Your task to perform on an android device: toggle sleep mode Image 0: 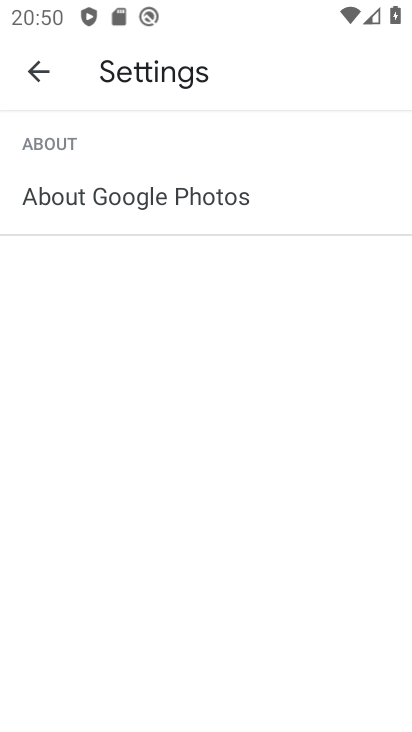
Step 0: press home button
Your task to perform on an android device: toggle sleep mode Image 1: 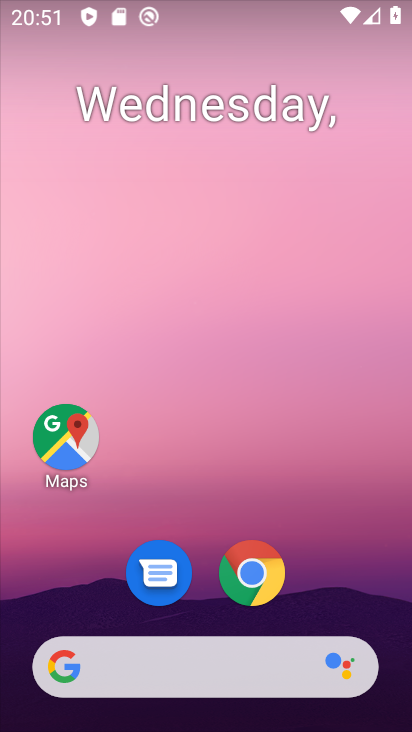
Step 1: drag from (365, 556) to (366, 255)
Your task to perform on an android device: toggle sleep mode Image 2: 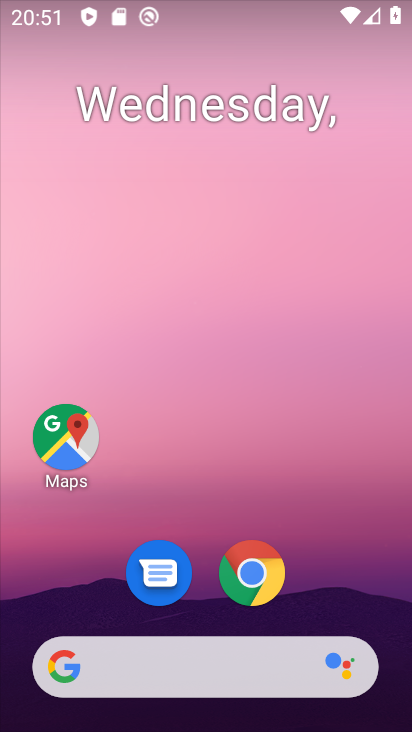
Step 2: click (369, 14)
Your task to perform on an android device: toggle sleep mode Image 3: 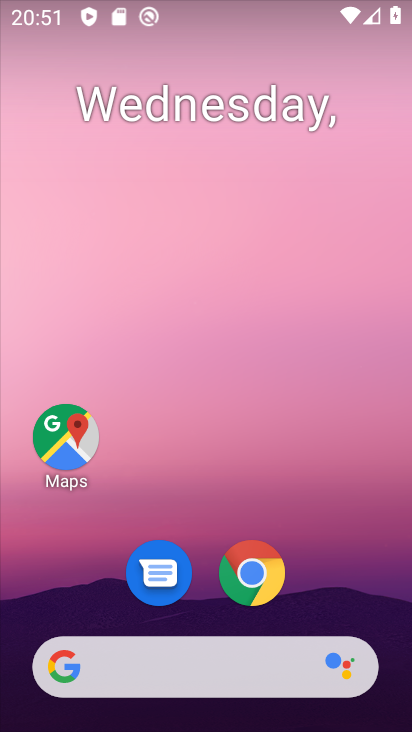
Step 3: drag from (366, 591) to (352, 40)
Your task to perform on an android device: toggle sleep mode Image 4: 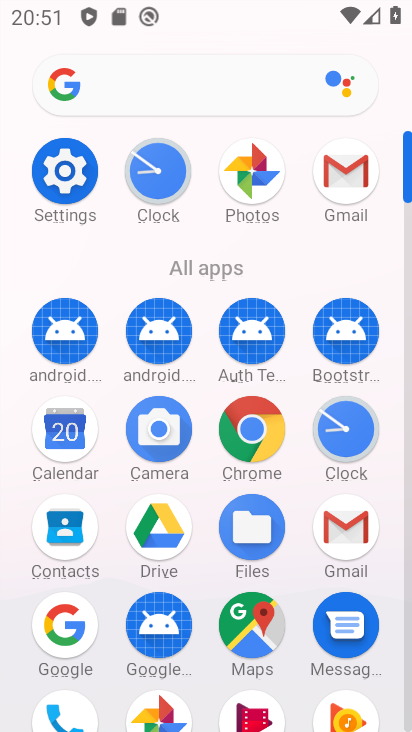
Step 4: click (56, 177)
Your task to perform on an android device: toggle sleep mode Image 5: 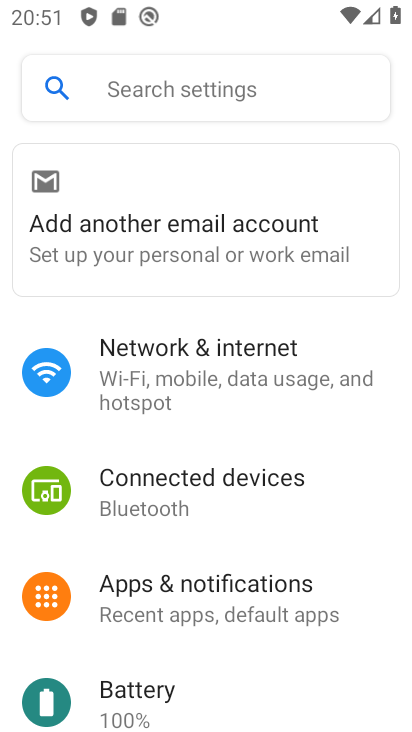
Step 5: drag from (357, 609) to (355, 278)
Your task to perform on an android device: toggle sleep mode Image 6: 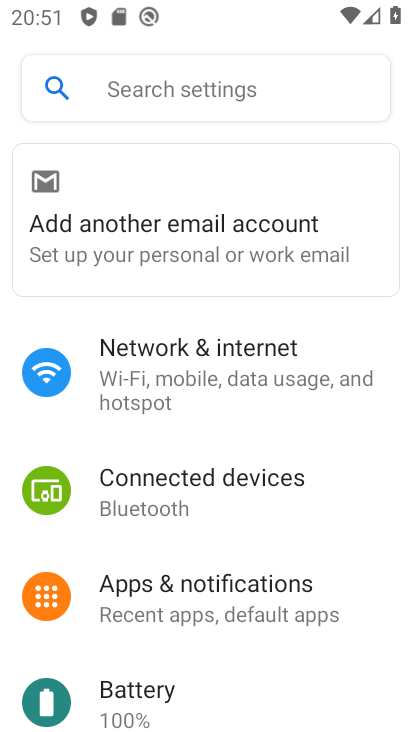
Step 6: click (375, 337)
Your task to perform on an android device: toggle sleep mode Image 7: 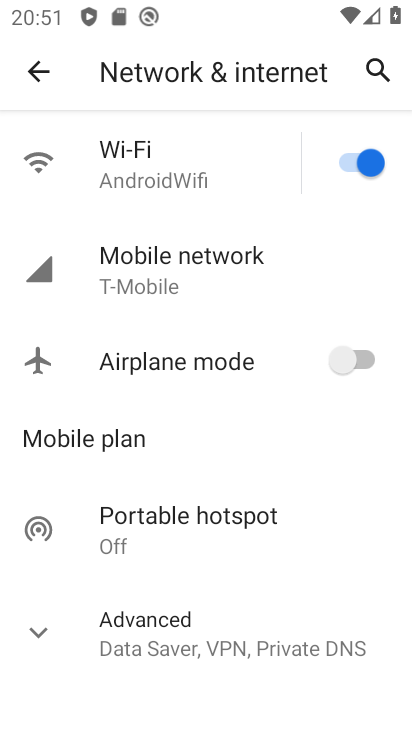
Step 7: click (41, 70)
Your task to perform on an android device: toggle sleep mode Image 8: 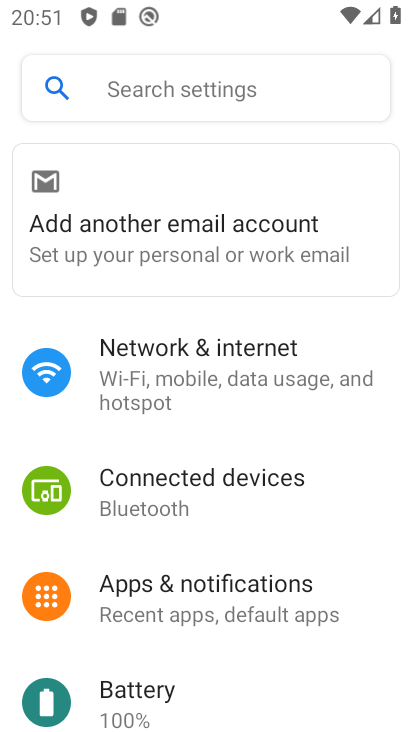
Step 8: drag from (380, 389) to (380, 272)
Your task to perform on an android device: toggle sleep mode Image 9: 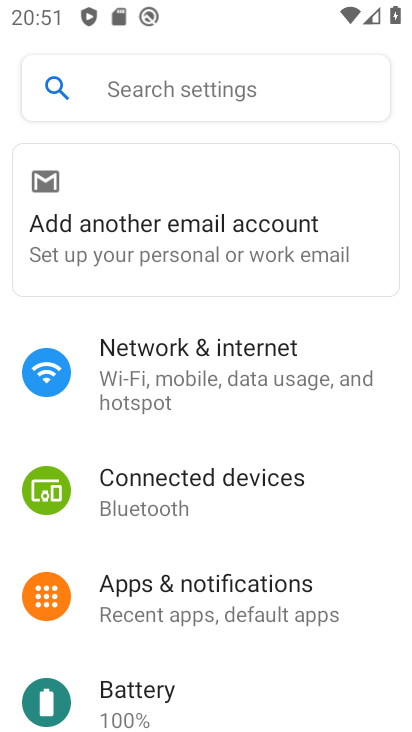
Step 9: drag from (385, 410) to (392, 274)
Your task to perform on an android device: toggle sleep mode Image 10: 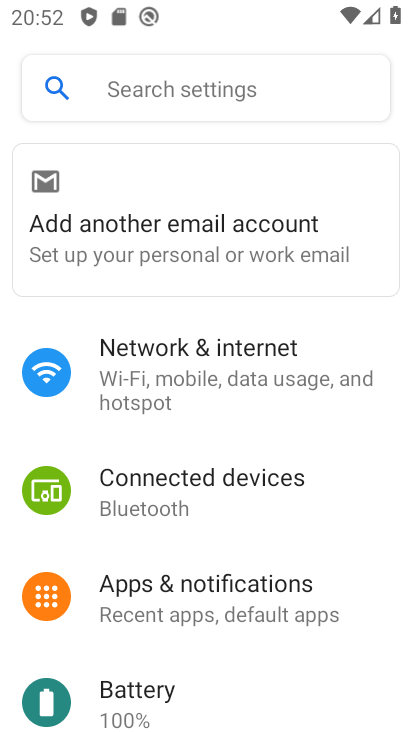
Step 10: drag from (363, 697) to (382, 340)
Your task to perform on an android device: toggle sleep mode Image 11: 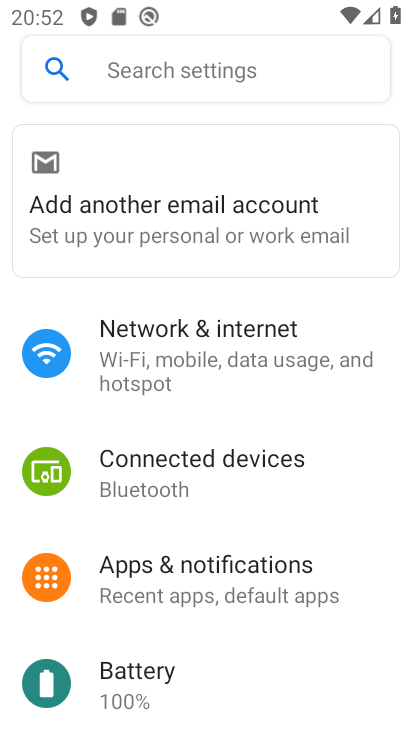
Step 11: drag from (333, 653) to (353, 314)
Your task to perform on an android device: toggle sleep mode Image 12: 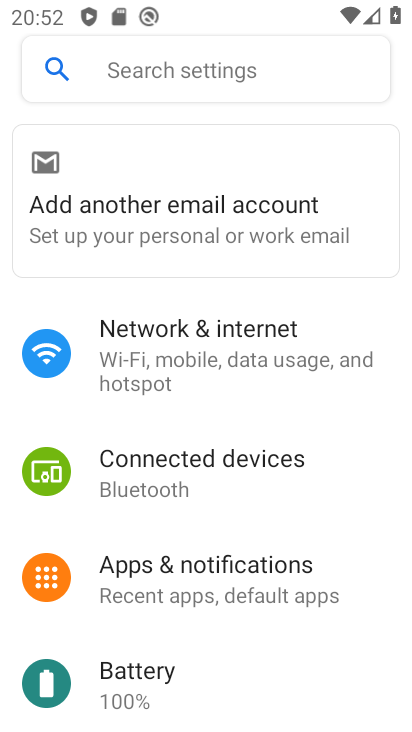
Step 12: drag from (351, 614) to (372, 326)
Your task to perform on an android device: toggle sleep mode Image 13: 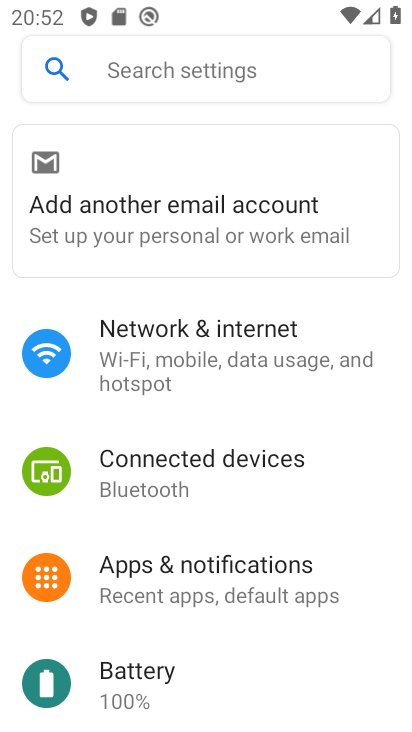
Step 13: drag from (381, 692) to (359, 293)
Your task to perform on an android device: toggle sleep mode Image 14: 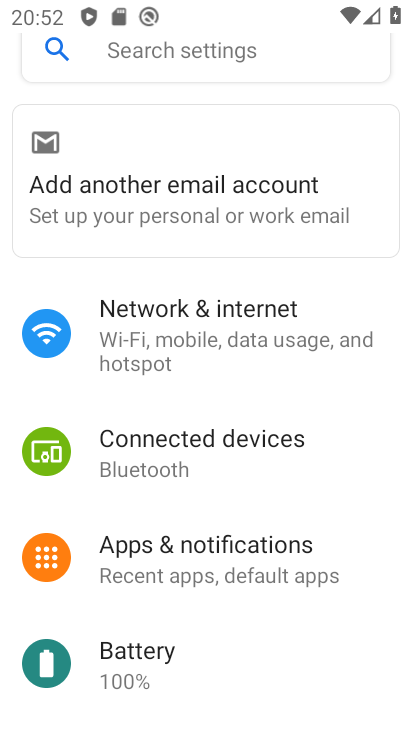
Step 14: drag from (360, 635) to (377, 323)
Your task to perform on an android device: toggle sleep mode Image 15: 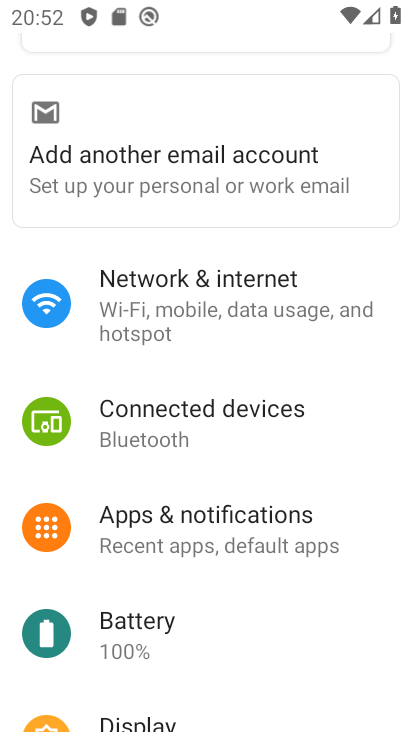
Step 15: drag from (338, 687) to (349, 287)
Your task to perform on an android device: toggle sleep mode Image 16: 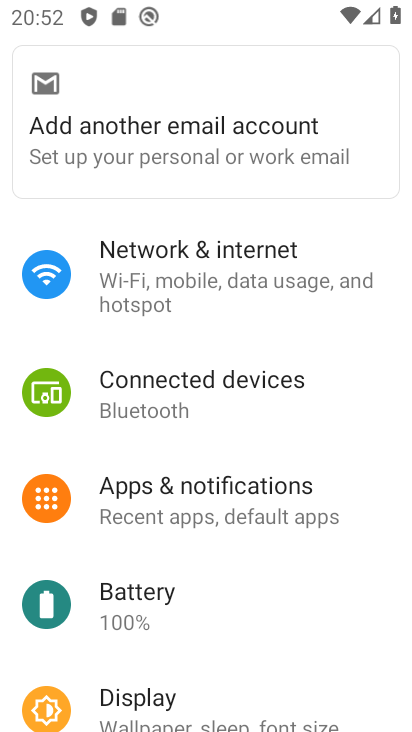
Step 16: click (149, 694)
Your task to perform on an android device: toggle sleep mode Image 17: 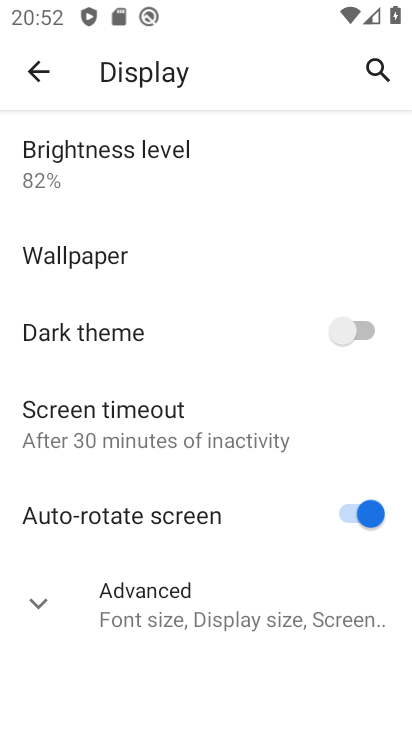
Step 17: click (121, 420)
Your task to perform on an android device: toggle sleep mode Image 18: 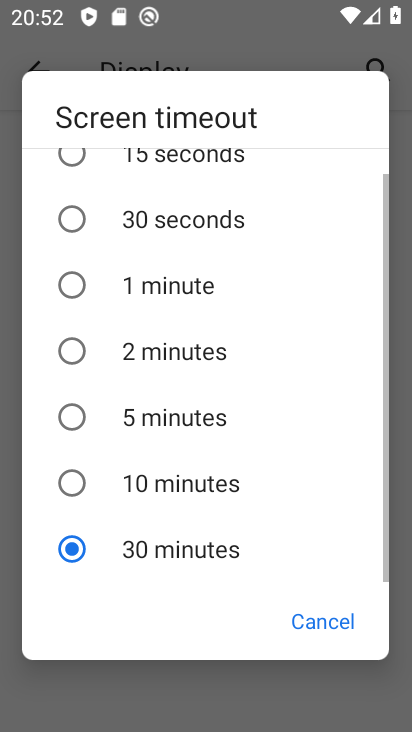
Step 18: click (65, 417)
Your task to perform on an android device: toggle sleep mode Image 19: 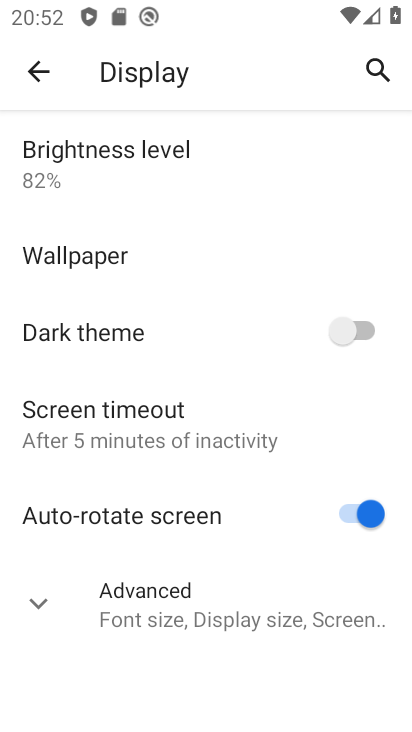
Step 19: task complete